Your task to perform on an android device: turn off wifi Image 0: 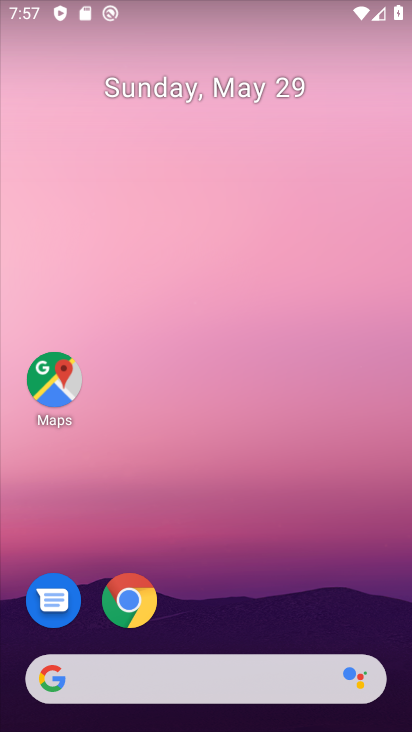
Step 0: drag from (354, 548) to (338, 143)
Your task to perform on an android device: turn off wifi Image 1: 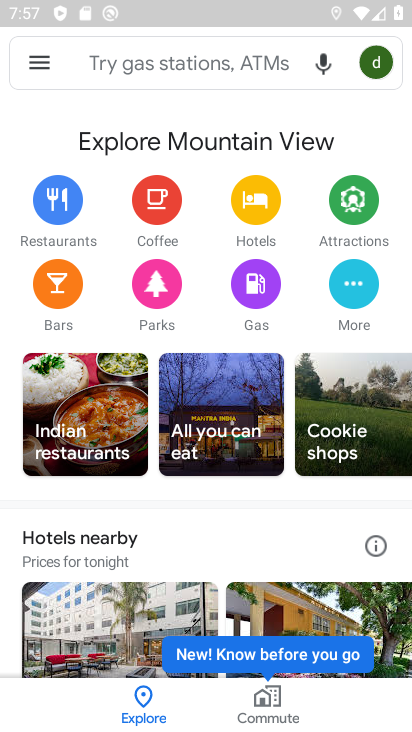
Step 1: press home button
Your task to perform on an android device: turn off wifi Image 2: 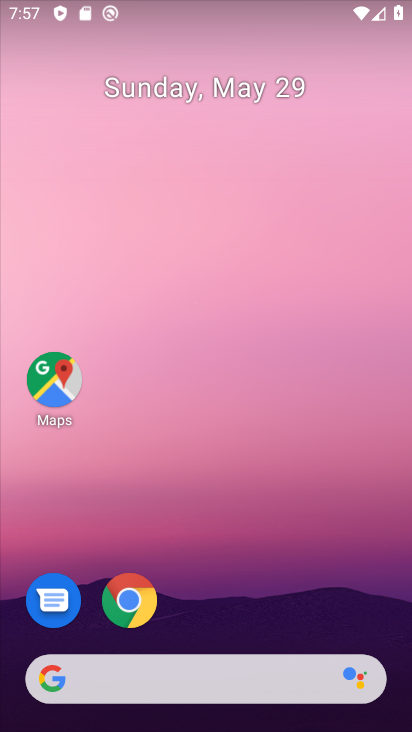
Step 2: drag from (275, 620) to (278, 163)
Your task to perform on an android device: turn off wifi Image 3: 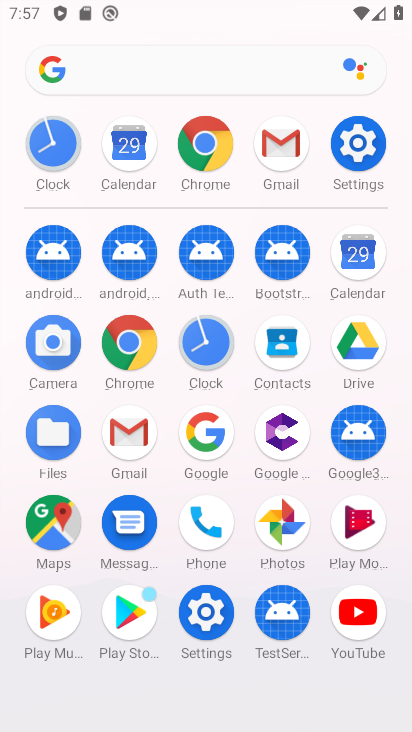
Step 3: click (357, 158)
Your task to perform on an android device: turn off wifi Image 4: 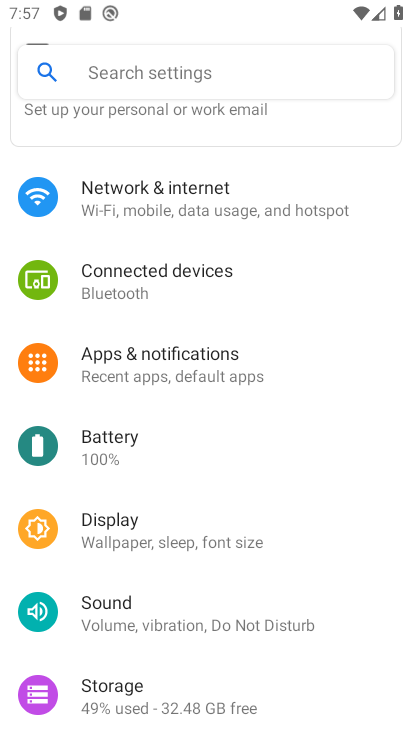
Step 4: drag from (291, 182) to (267, 621)
Your task to perform on an android device: turn off wifi Image 5: 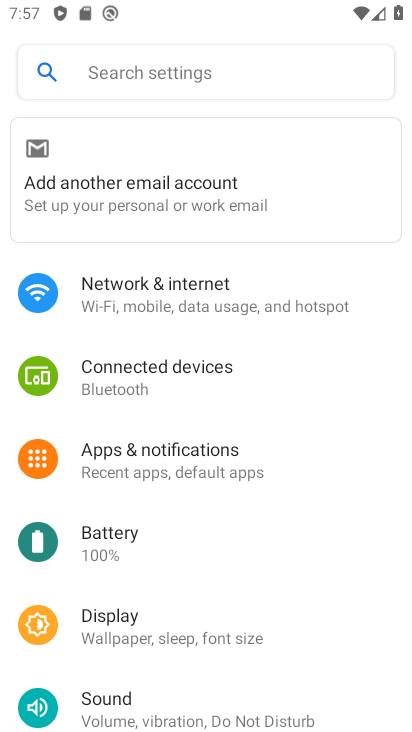
Step 5: click (231, 300)
Your task to perform on an android device: turn off wifi Image 6: 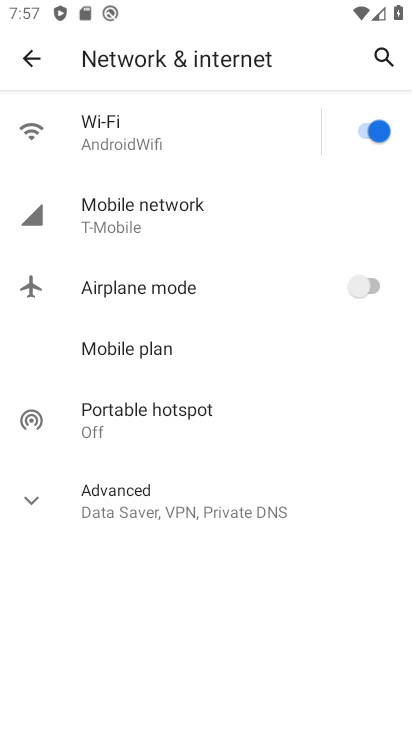
Step 6: click (382, 133)
Your task to perform on an android device: turn off wifi Image 7: 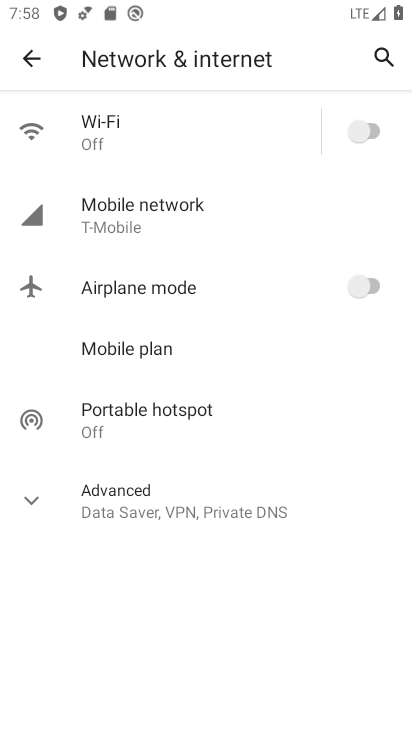
Step 7: task complete